Your task to perform on an android device: Go to CNN.com Image 0: 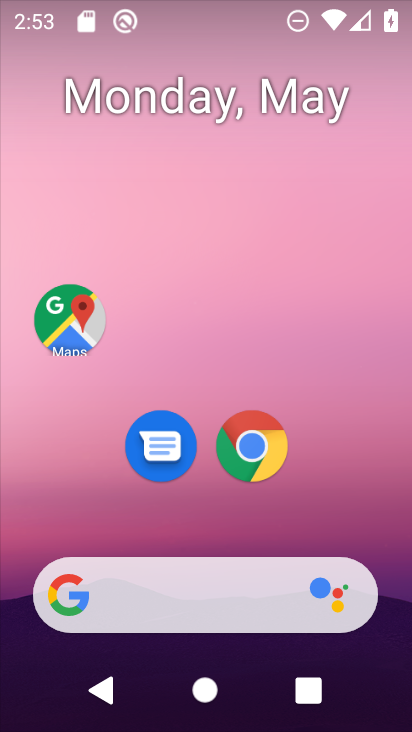
Step 0: click (210, 620)
Your task to perform on an android device: Go to CNN.com Image 1: 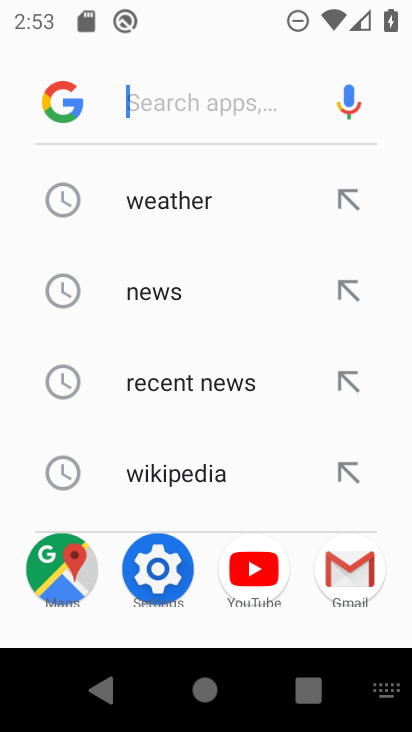
Step 1: type "cnn.com"
Your task to perform on an android device: Go to CNN.com Image 2: 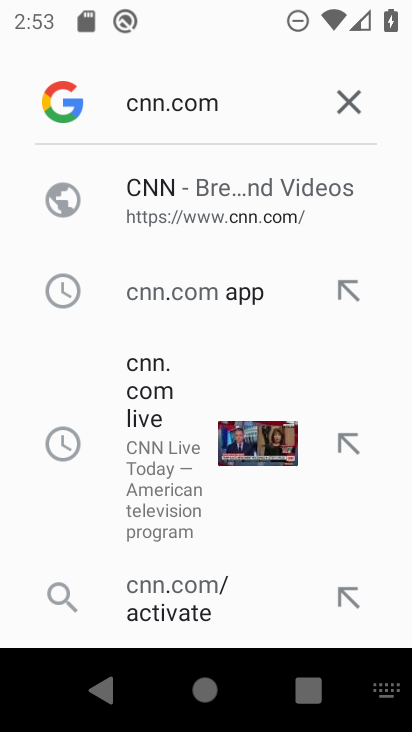
Step 2: click (164, 208)
Your task to perform on an android device: Go to CNN.com Image 3: 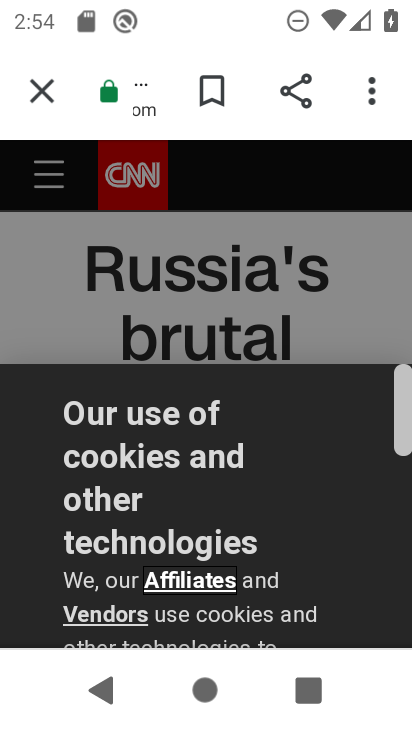
Step 3: task complete